Your task to perform on an android device: Open calendar and show me the third week of next month Image 0: 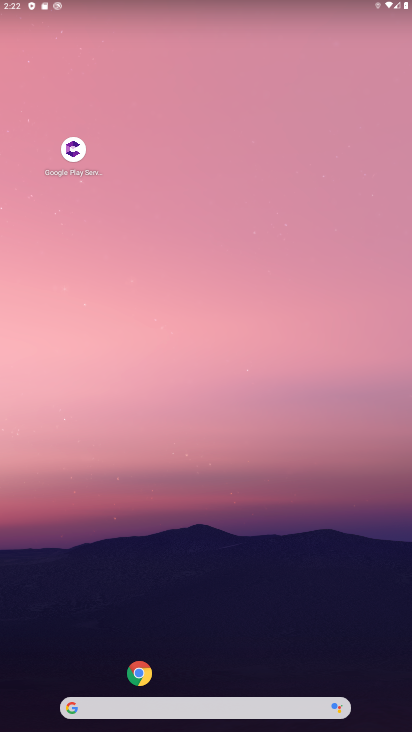
Step 0: click (353, 63)
Your task to perform on an android device: Open calendar and show me the third week of next month Image 1: 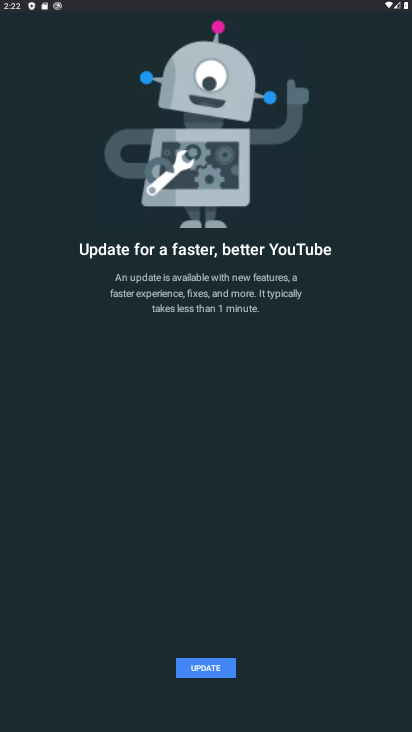
Step 1: press home button
Your task to perform on an android device: Open calendar and show me the third week of next month Image 2: 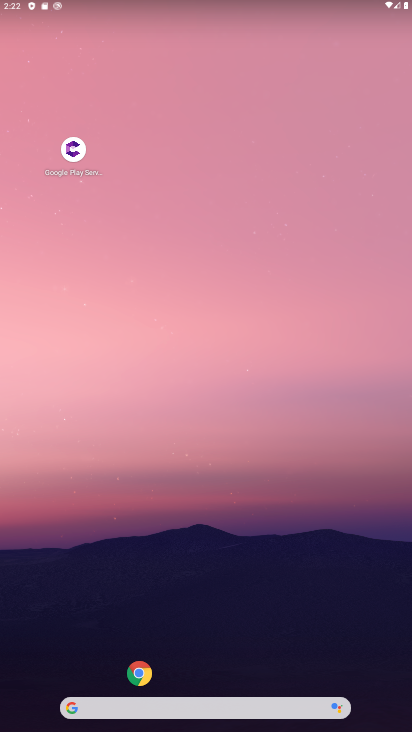
Step 2: drag from (45, 689) to (283, 233)
Your task to perform on an android device: Open calendar and show me the third week of next month Image 3: 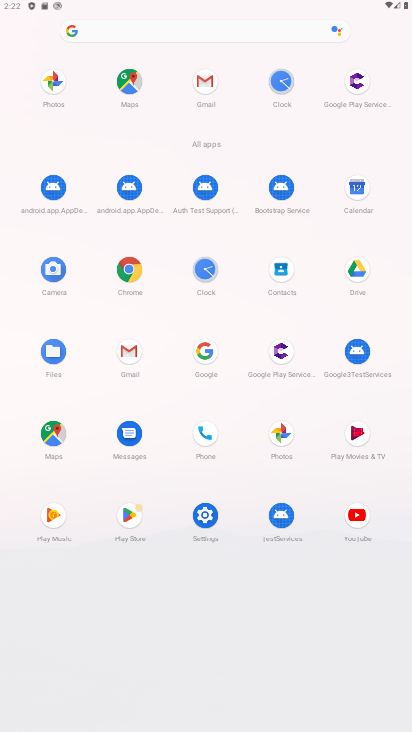
Step 3: click (341, 195)
Your task to perform on an android device: Open calendar and show me the third week of next month Image 4: 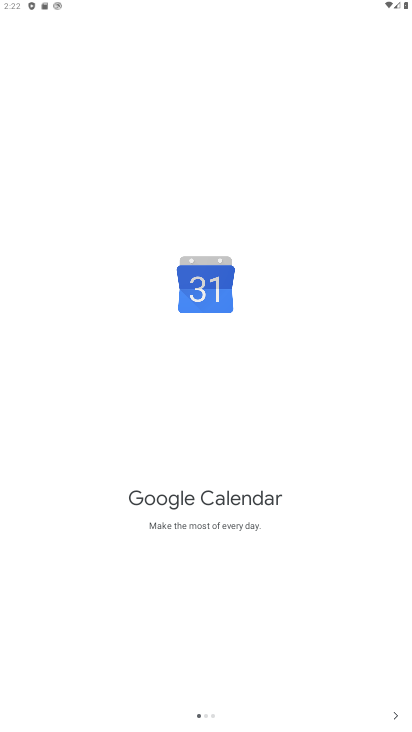
Step 4: click (396, 715)
Your task to perform on an android device: Open calendar and show me the third week of next month Image 5: 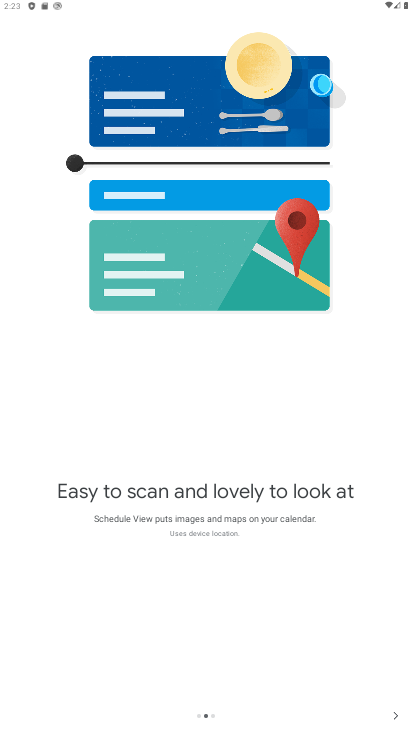
Step 5: click (395, 714)
Your task to perform on an android device: Open calendar and show me the third week of next month Image 6: 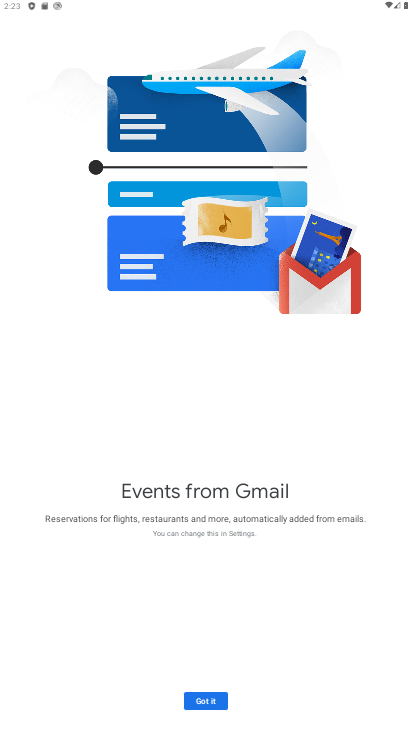
Step 6: click (212, 697)
Your task to perform on an android device: Open calendar and show me the third week of next month Image 7: 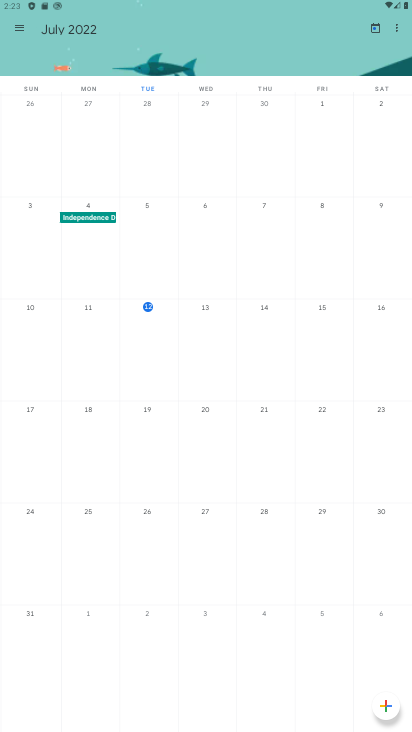
Step 7: drag from (384, 310) to (66, 232)
Your task to perform on an android device: Open calendar and show me the third week of next month Image 8: 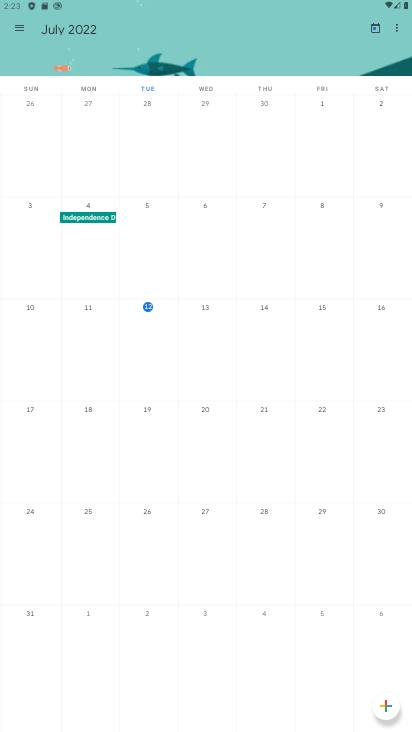
Step 8: drag from (396, 364) to (15, 420)
Your task to perform on an android device: Open calendar and show me the third week of next month Image 9: 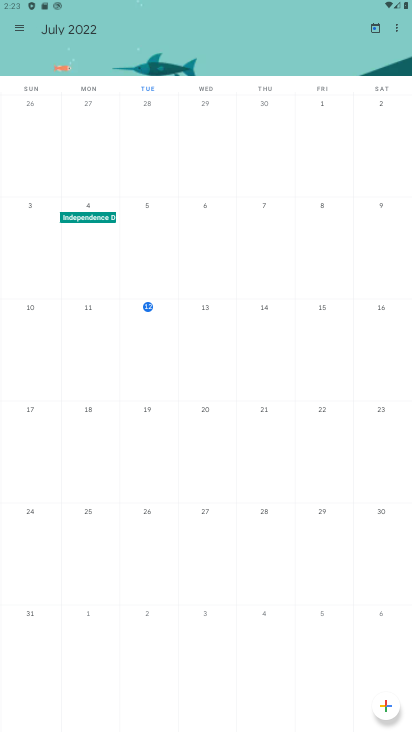
Step 9: drag from (385, 268) to (39, 256)
Your task to perform on an android device: Open calendar and show me the third week of next month Image 10: 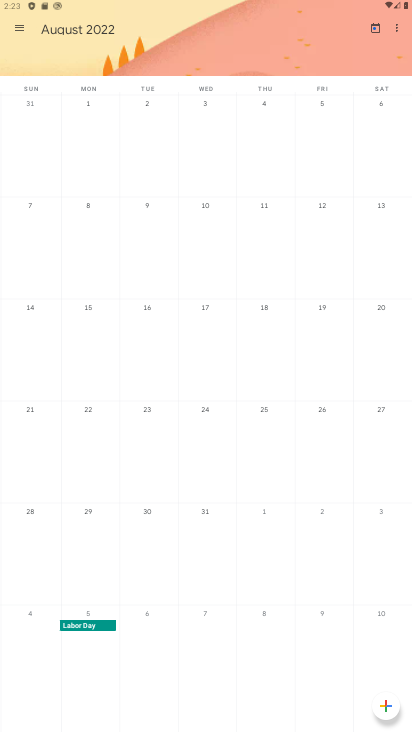
Step 10: click (87, 308)
Your task to perform on an android device: Open calendar and show me the third week of next month Image 11: 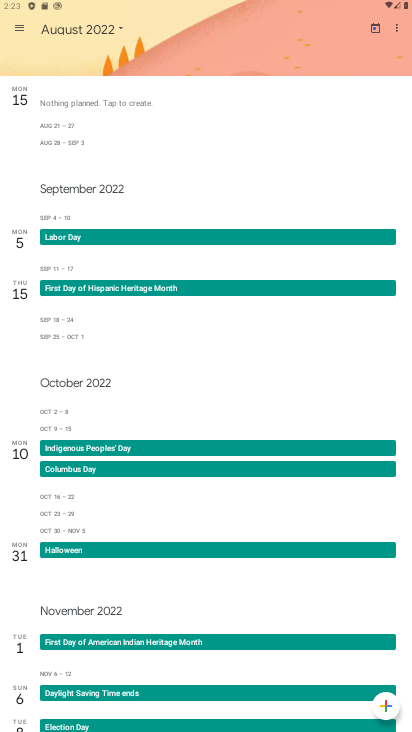
Step 11: task complete